Your task to perform on an android device: Is it going to rain this weekend? Image 0: 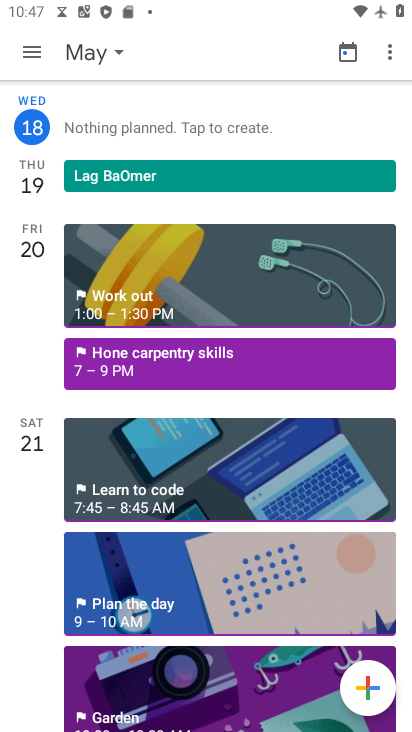
Step 0: press back button
Your task to perform on an android device: Is it going to rain this weekend? Image 1: 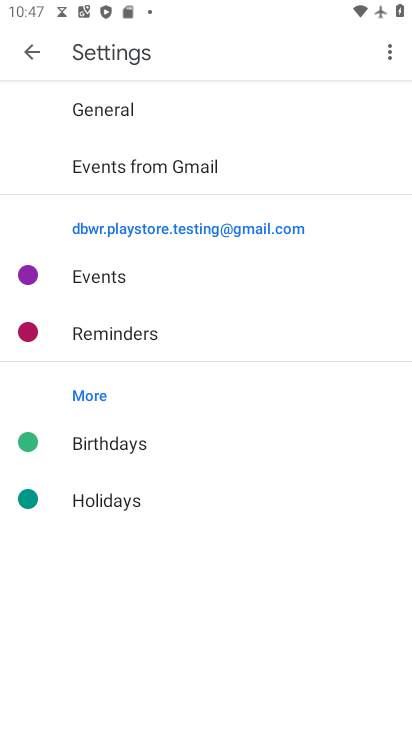
Step 1: press back button
Your task to perform on an android device: Is it going to rain this weekend? Image 2: 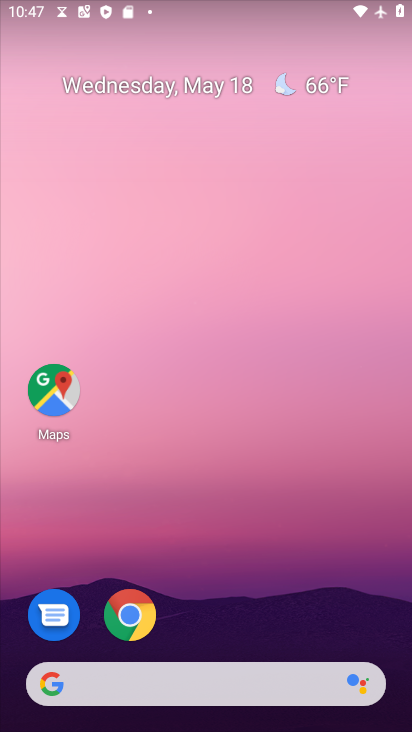
Step 2: drag from (243, 478) to (240, 55)
Your task to perform on an android device: Is it going to rain this weekend? Image 3: 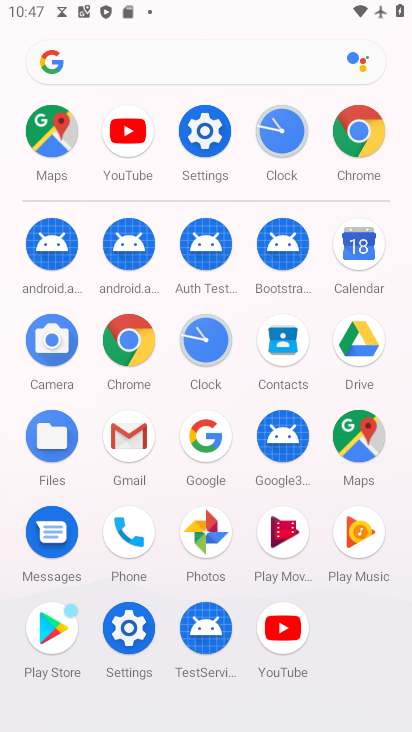
Step 3: click (127, 340)
Your task to perform on an android device: Is it going to rain this weekend? Image 4: 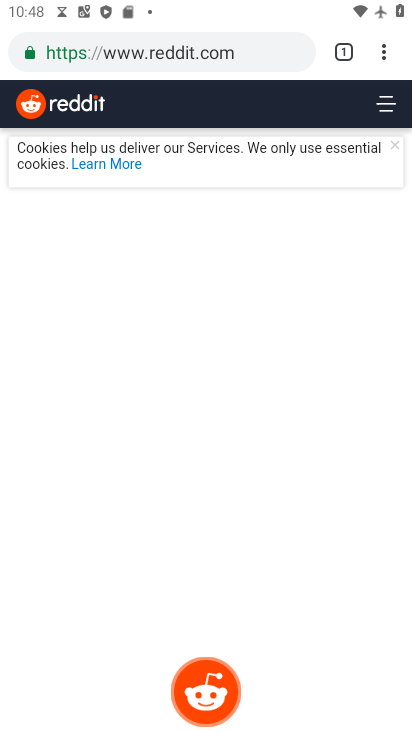
Step 4: click (152, 51)
Your task to perform on an android device: Is it going to rain this weekend? Image 5: 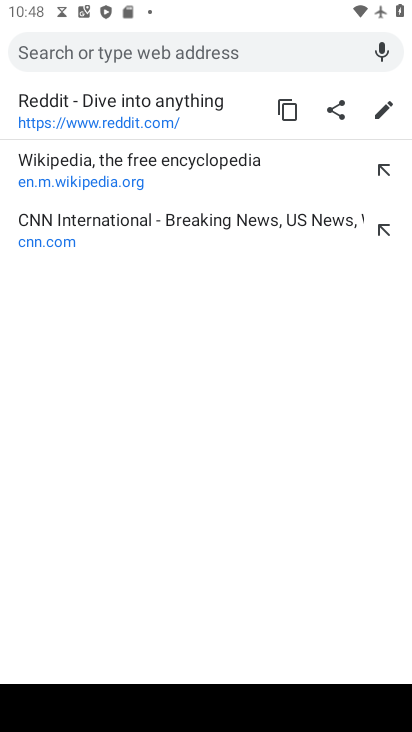
Step 5: type "Is it going to rain this weekend?"
Your task to perform on an android device: Is it going to rain this weekend? Image 6: 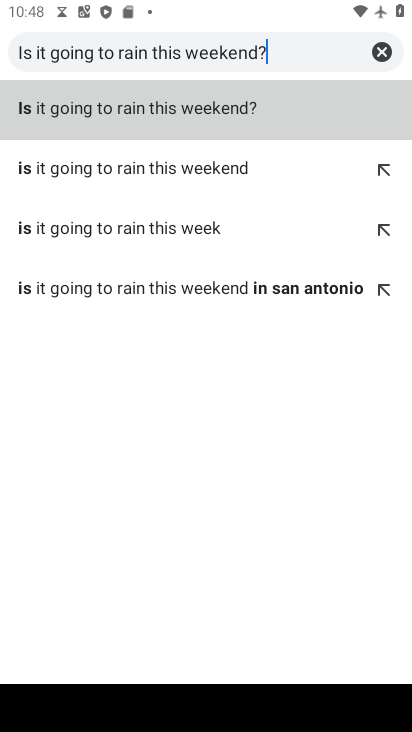
Step 6: type ""
Your task to perform on an android device: Is it going to rain this weekend? Image 7: 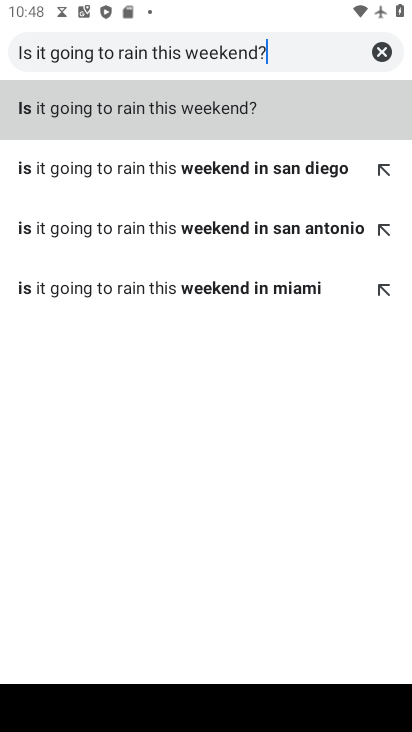
Step 7: click (169, 113)
Your task to perform on an android device: Is it going to rain this weekend? Image 8: 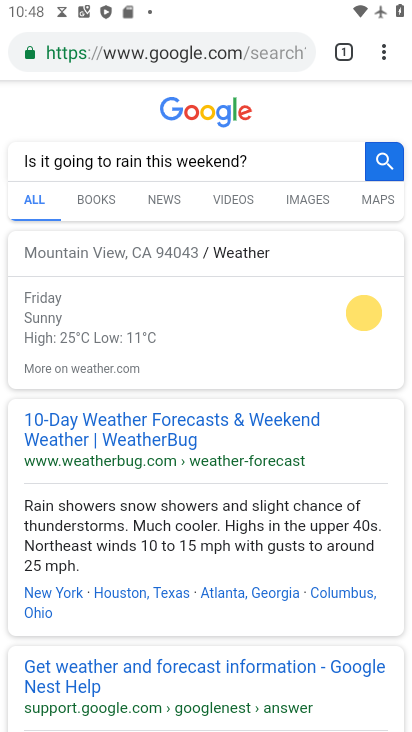
Step 8: task complete